Your task to perform on an android device: turn on translation in the chrome app Image 0: 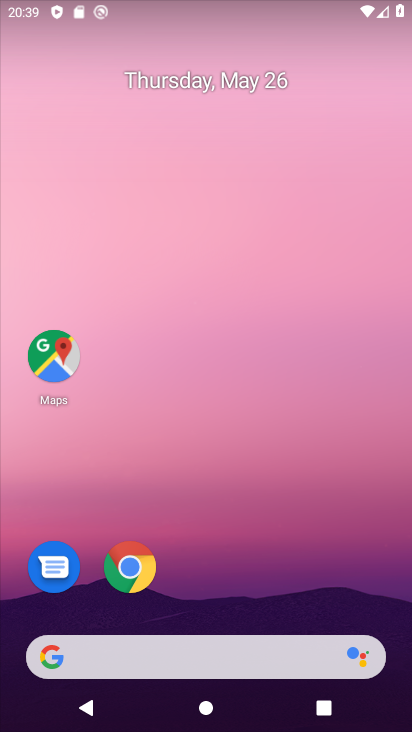
Step 0: click (141, 570)
Your task to perform on an android device: turn on translation in the chrome app Image 1: 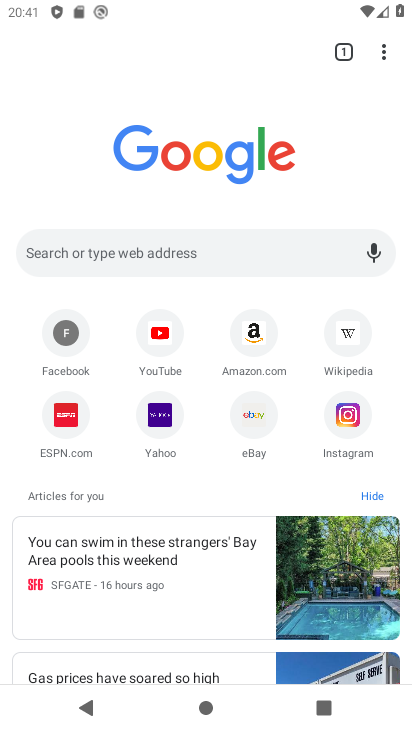
Step 1: click (396, 45)
Your task to perform on an android device: turn on translation in the chrome app Image 2: 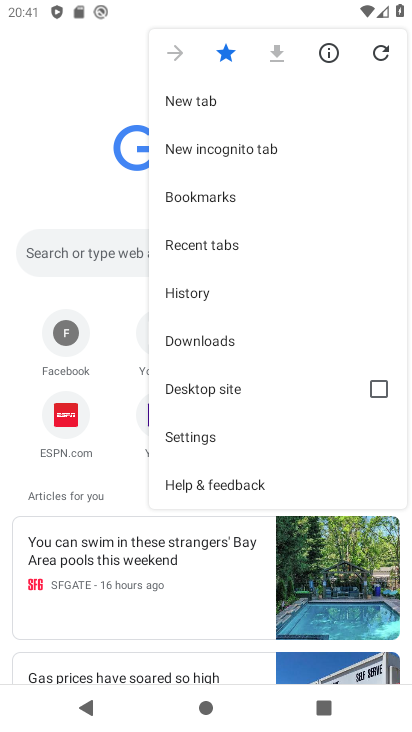
Step 2: click (213, 442)
Your task to perform on an android device: turn on translation in the chrome app Image 3: 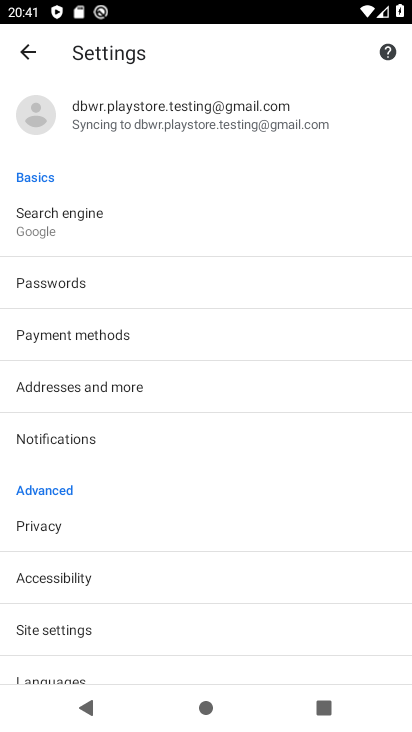
Step 3: drag from (152, 603) to (184, 291)
Your task to perform on an android device: turn on translation in the chrome app Image 4: 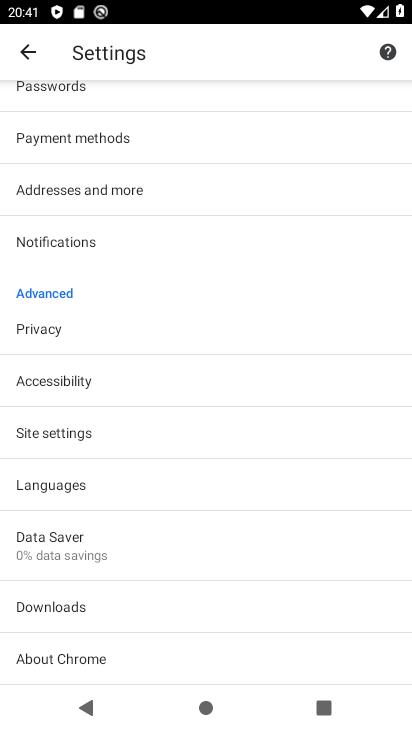
Step 4: click (135, 486)
Your task to perform on an android device: turn on translation in the chrome app Image 5: 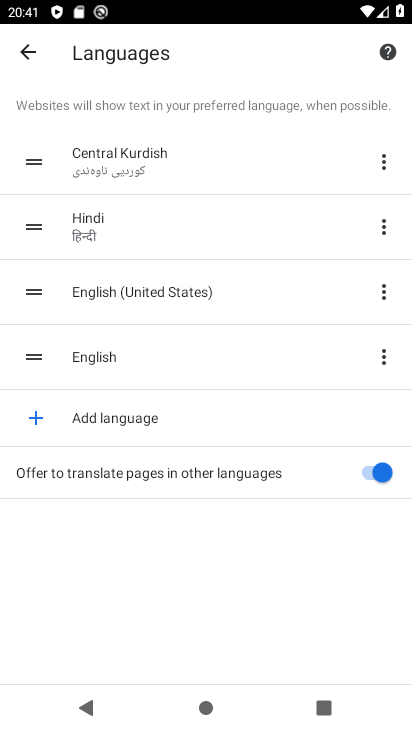
Step 5: task complete